Your task to perform on an android device: Go to Yahoo.com Image 0: 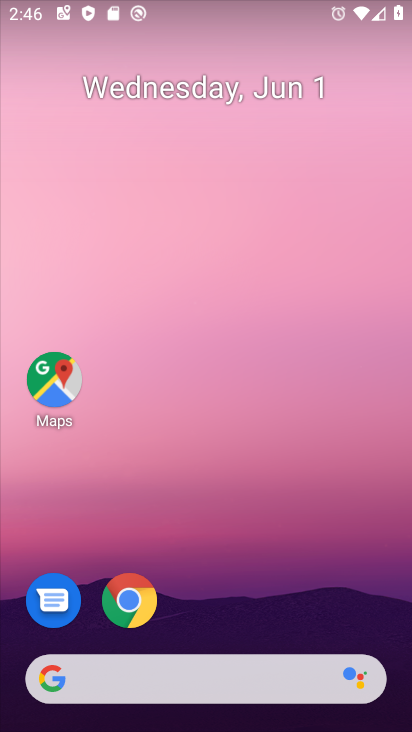
Step 0: drag from (274, 549) to (5, 8)
Your task to perform on an android device: Go to Yahoo.com Image 1: 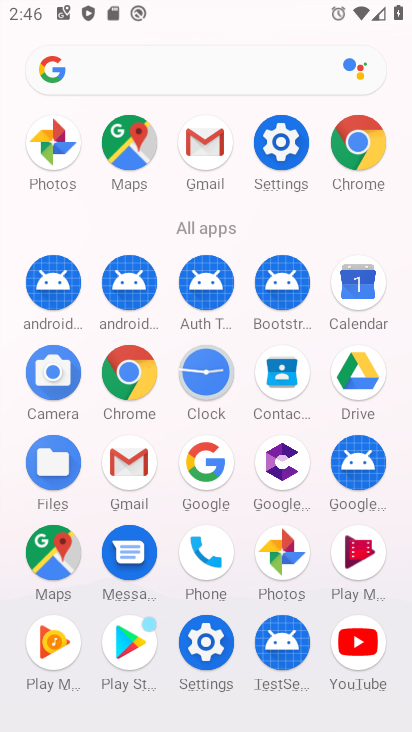
Step 1: drag from (1, 598) to (7, 302)
Your task to perform on an android device: Go to Yahoo.com Image 2: 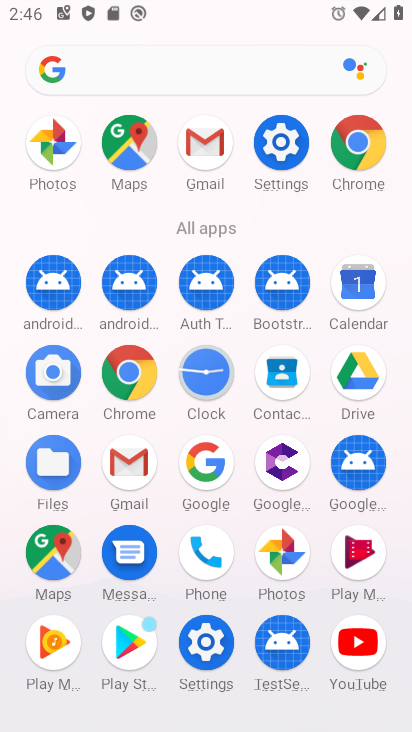
Step 2: click (126, 360)
Your task to perform on an android device: Go to Yahoo.com Image 3: 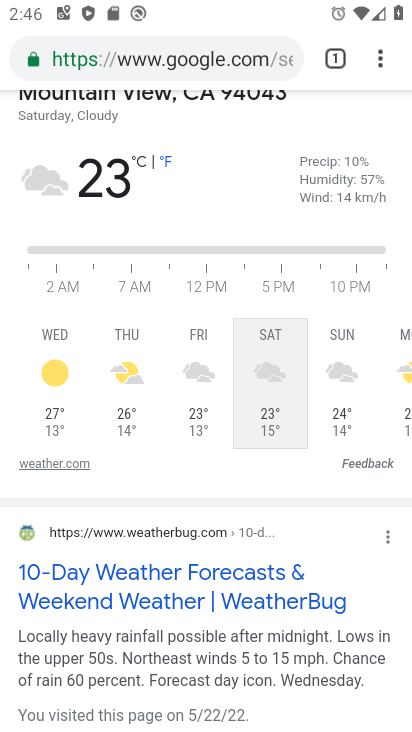
Step 3: click (187, 50)
Your task to perform on an android device: Go to Yahoo.com Image 4: 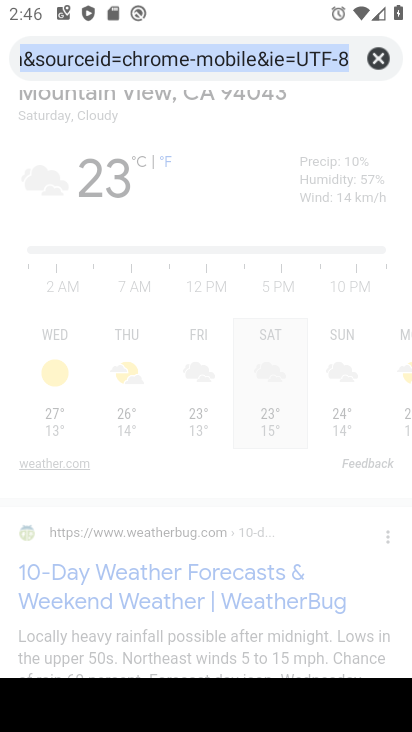
Step 4: click (387, 54)
Your task to perform on an android device: Go to Yahoo.com Image 5: 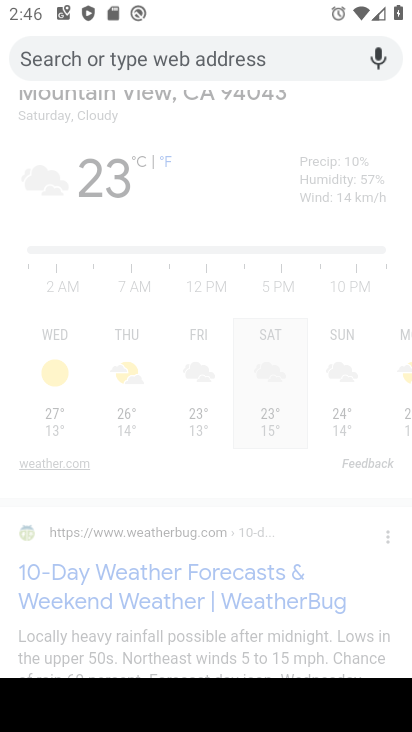
Step 5: type "Yahoo.com"
Your task to perform on an android device: Go to Yahoo.com Image 6: 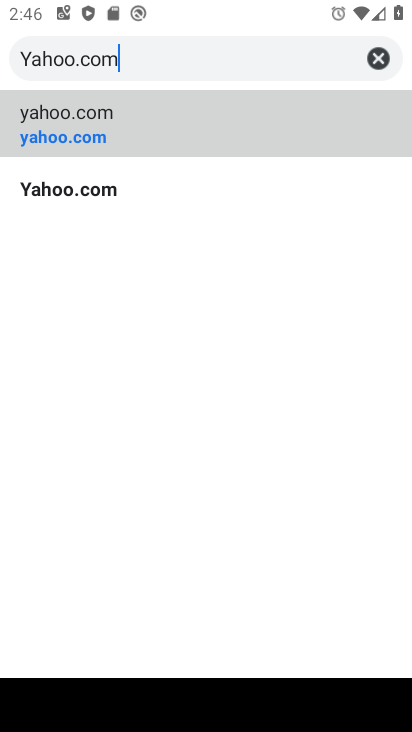
Step 6: type ""
Your task to perform on an android device: Go to Yahoo.com Image 7: 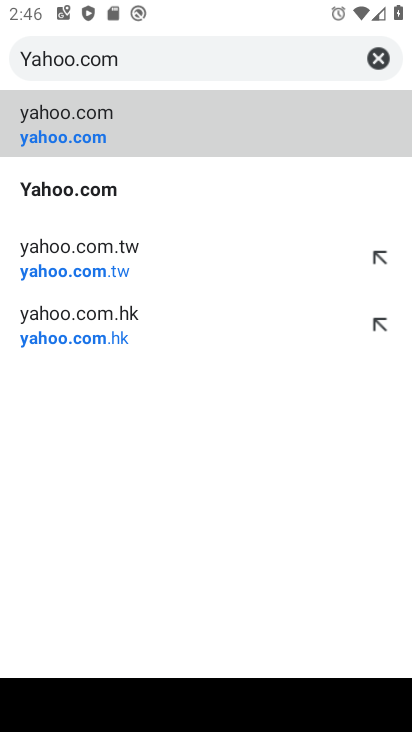
Step 7: click (129, 129)
Your task to perform on an android device: Go to Yahoo.com Image 8: 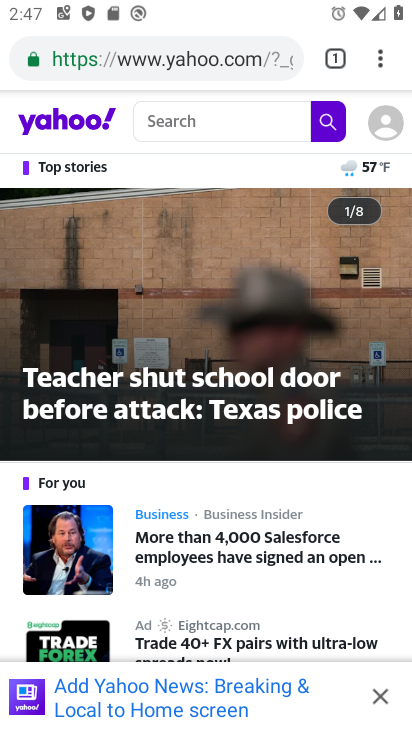
Step 8: task complete